Your task to perform on an android device: Go to Yahoo.com Image 0: 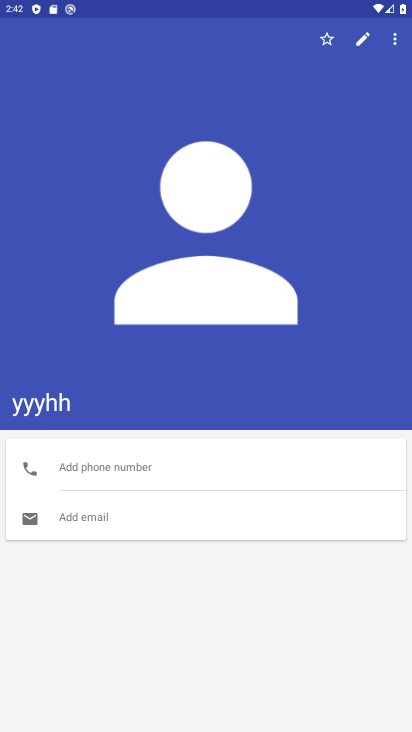
Step 0: press home button
Your task to perform on an android device: Go to Yahoo.com Image 1: 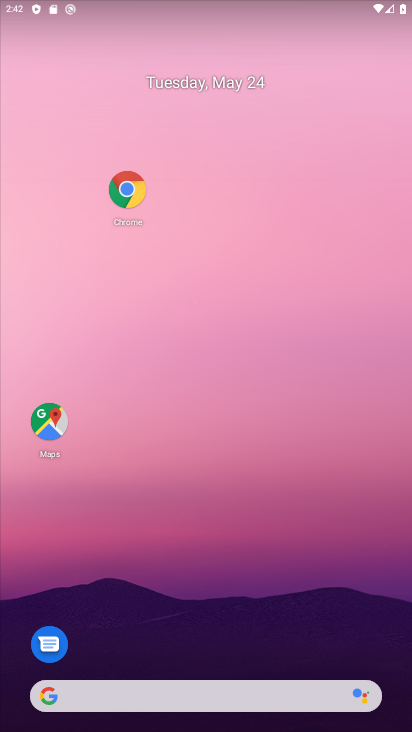
Step 1: drag from (177, 609) to (184, 47)
Your task to perform on an android device: Go to Yahoo.com Image 2: 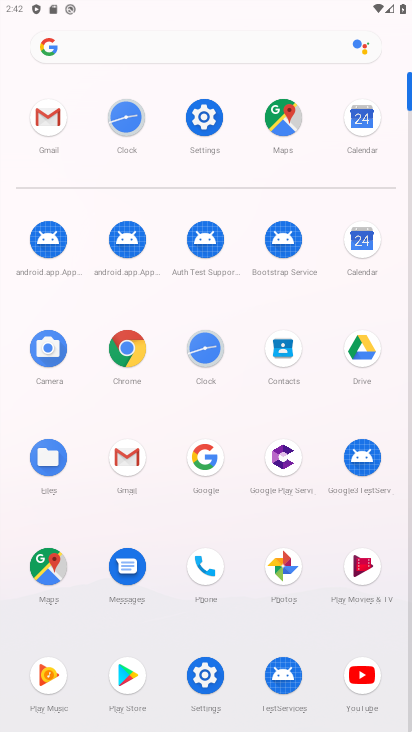
Step 2: click (128, 349)
Your task to perform on an android device: Go to Yahoo.com Image 3: 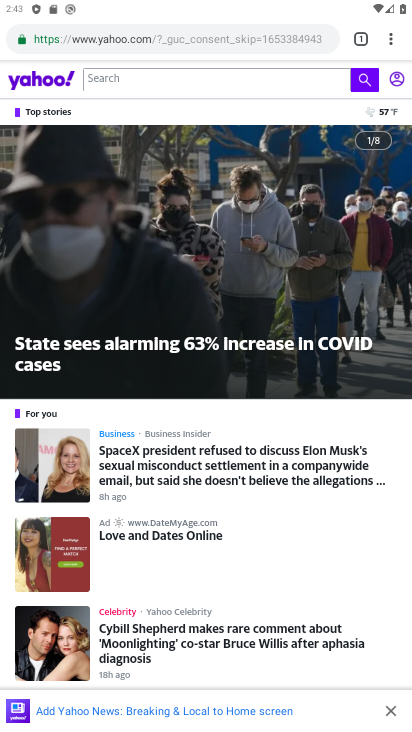
Step 3: task complete